Your task to perform on an android device: Toggle the flashlight Image 0: 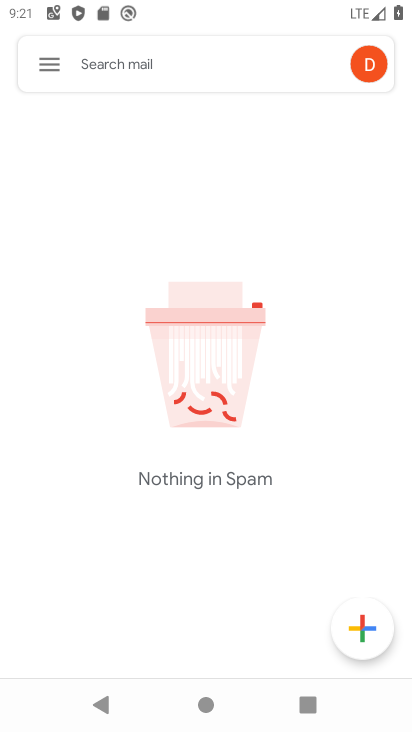
Step 0: press home button
Your task to perform on an android device: Toggle the flashlight Image 1: 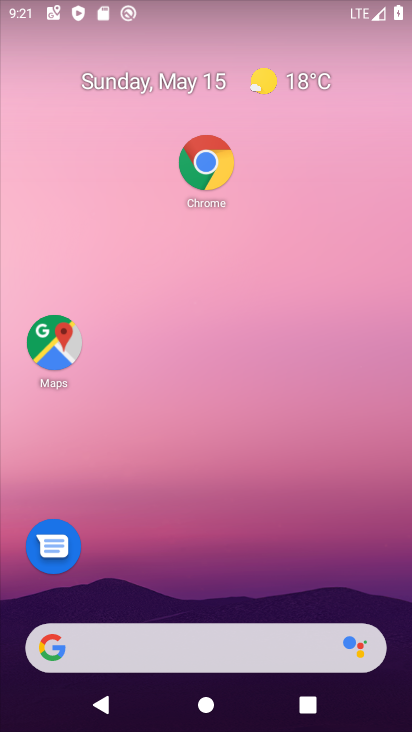
Step 1: drag from (249, 552) to (264, 160)
Your task to perform on an android device: Toggle the flashlight Image 2: 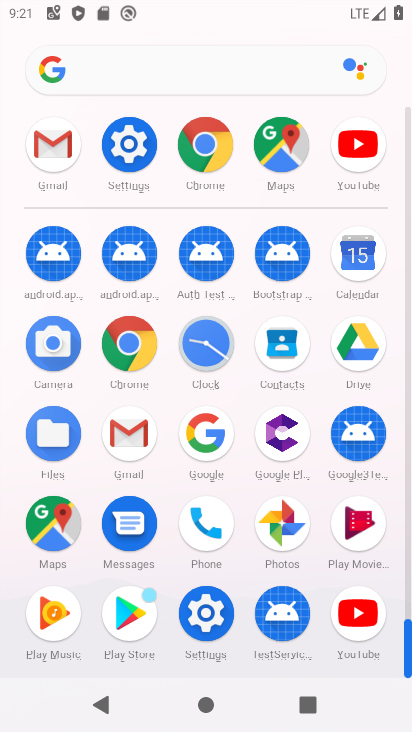
Step 2: click (132, 139)
Your task to perform on an android device: Toggle the flashlight Image 3: 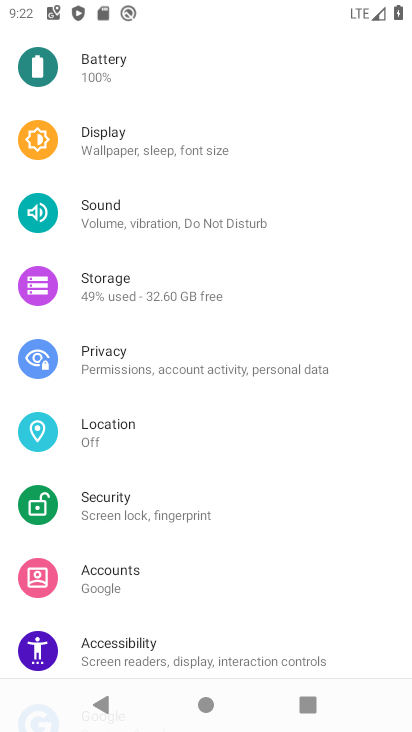
Step 3: task complete